Your task to perform on an android device: remove spam from my inbox in the gmail app Image 0: 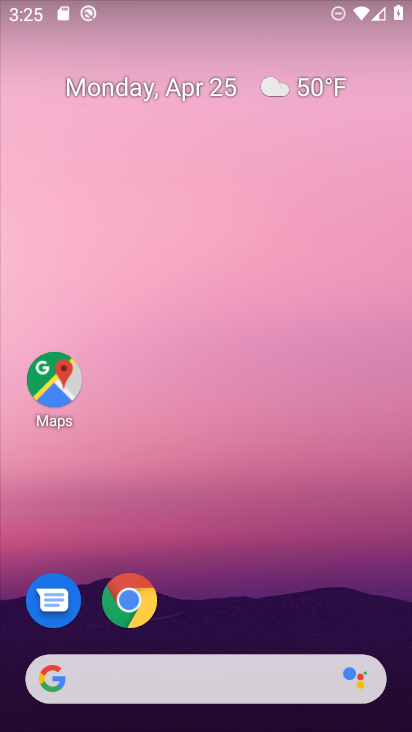
Step 0: drag from (199, 643) to (179, 50)
Your task to perform on an android device: remove spam from my inbox in the gmail app Image 1: 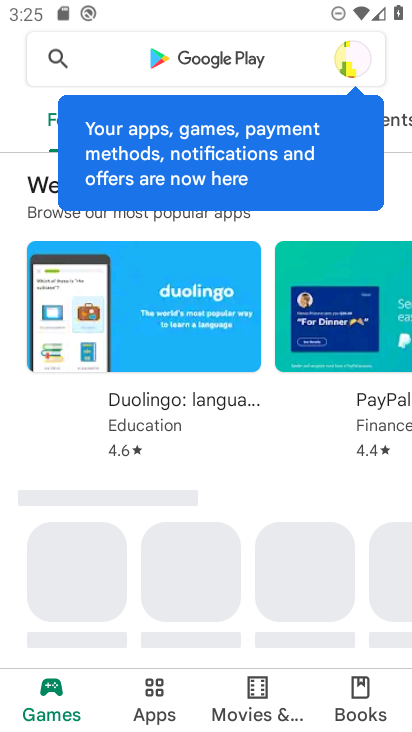
Step 1: press home button
Your task to perform on an android device: remove spam from my inbox in the gmail app Image 2: 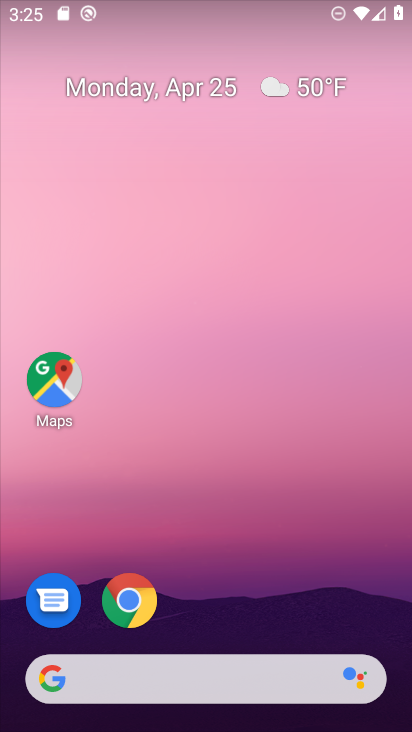
Step 2: drag from (207, 640) to (177, 16)
Your task to perform on an android device: remove spam from my inbox in the gmail app Image 3: 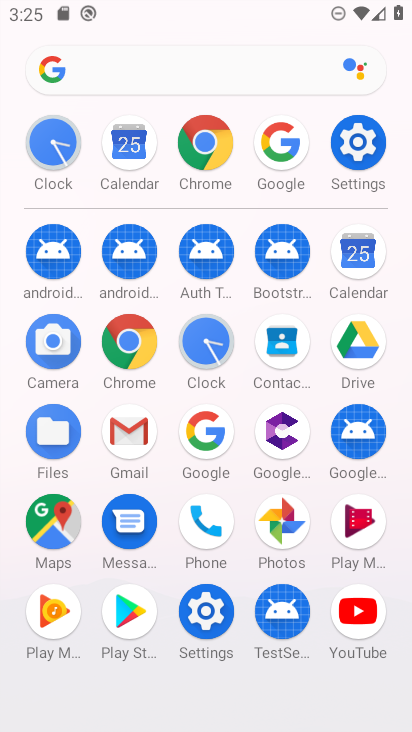
Step 3: click (121, 441)
Your task to perform on an android device: remove spam from my inbox in the gmail app Image 4: 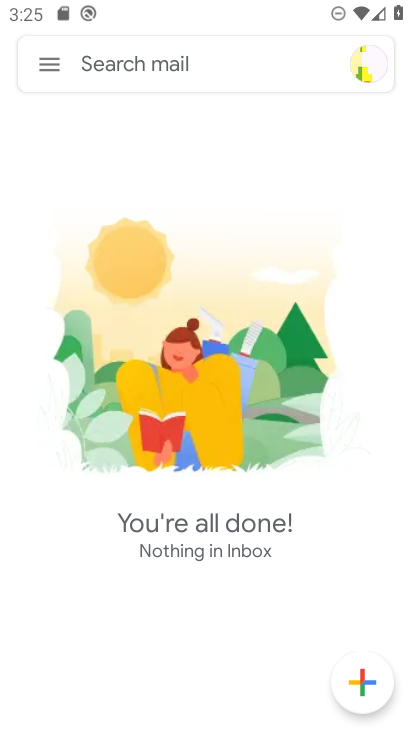
Step 4: click (36, 62)
Your task to perform on an android device: remove spam from my inbox in the gmail app Image 5: 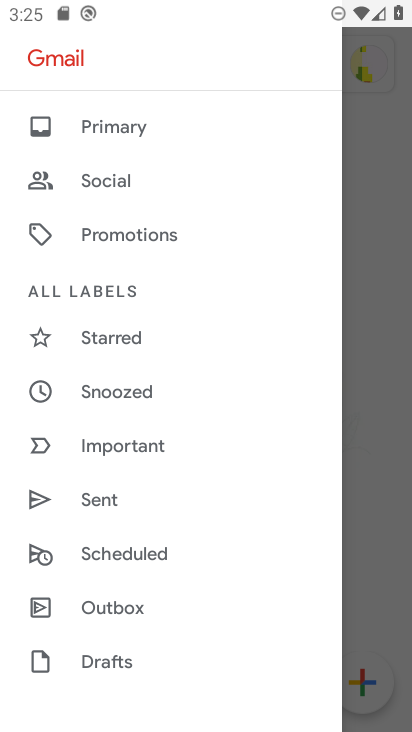
Step 5: drag from (112, 560) to (125, 155)
Your task to perform on an android device: remove spam from my inbox in the gmail app Image 6: 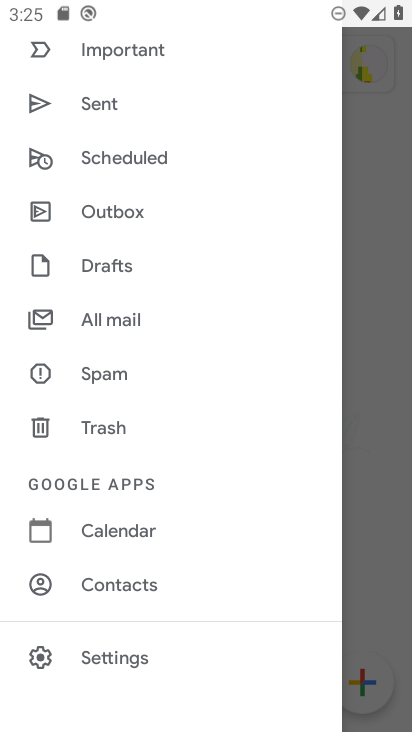
Step 6: click (120, 372)
Your task to perform on an android device: remove spam from my inbox in the gmail app Image 7: 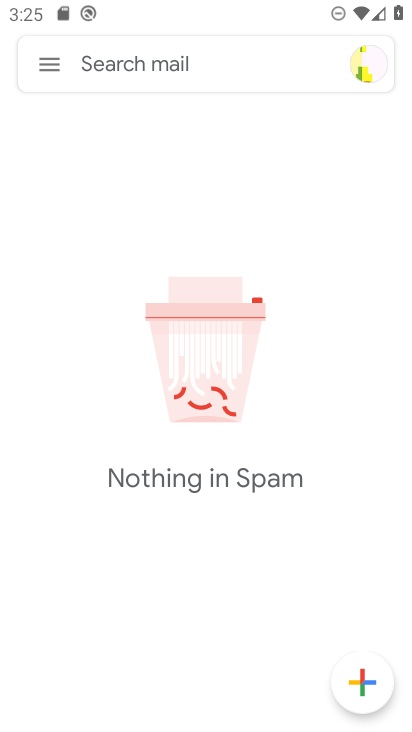
Step 7: task complete